Your task to perform on an android device: toggle improve location accuracy Image 0: 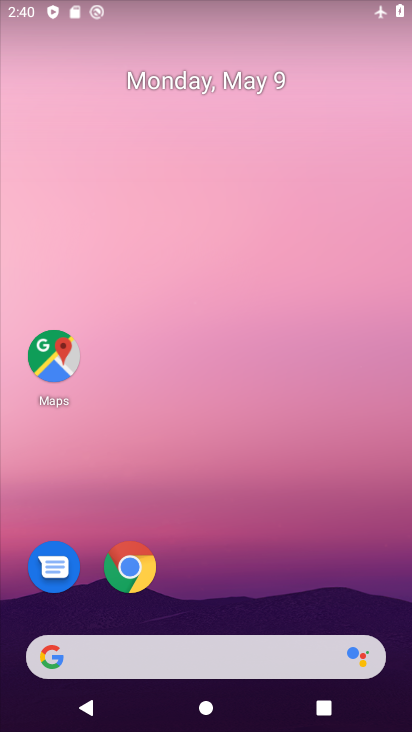
Step 0: drag from (218, 592) to (210, 93)
Your task to perform on an android device: toggle improve location accuracy Image 1: 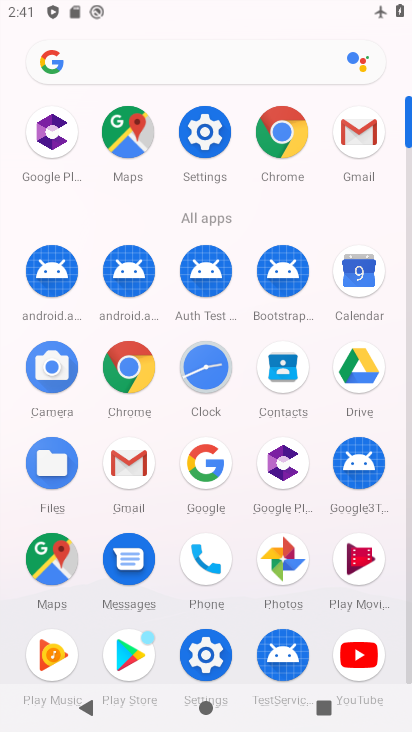
Step 1: click (215, 130)
Your task to perform on an android device: toggle improve location accuracy Image 2: 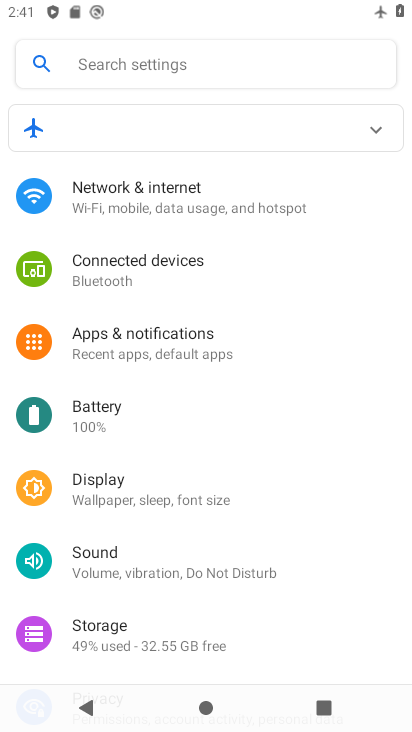
Step 2: drag from (176, 581) to (132, 201)
Your task to perform on an android device: toggle improve location accuracy Image 3: 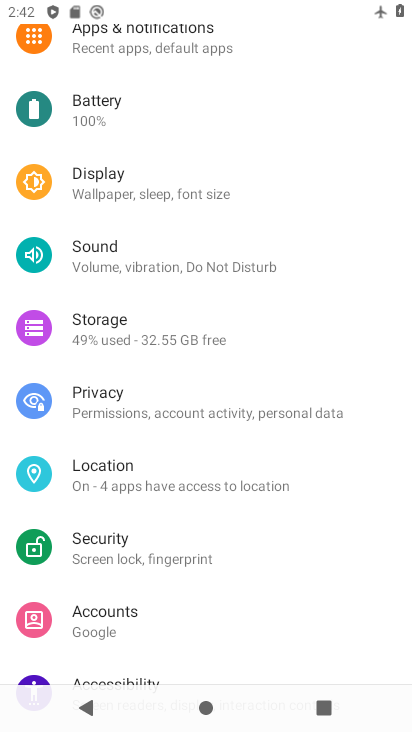
Step 3: click (215, 485)
Your task to perform on an android device: toggle improve location accuracy Image 4: 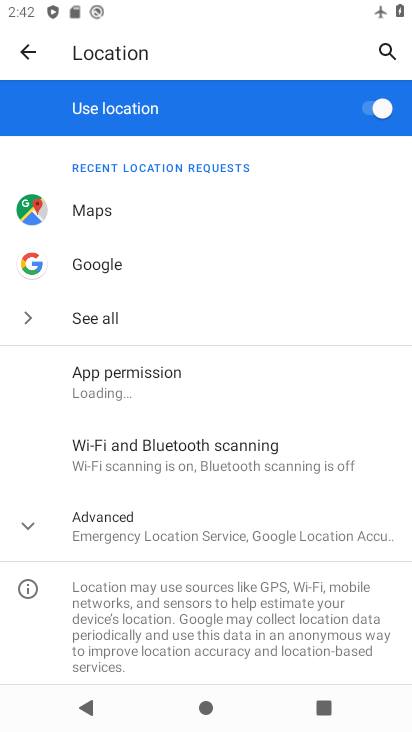
Step 4: click (199, 534)
Your task to perform on an android device: toggle improve location accuracy Image 5: 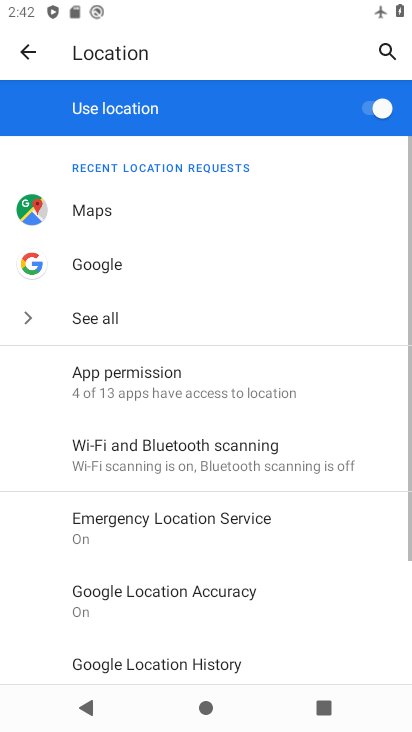
Step 5: drag from (282, 669) to (288, 491)
Your task to perform on an android device: toggle improve location accuracy Image 6: 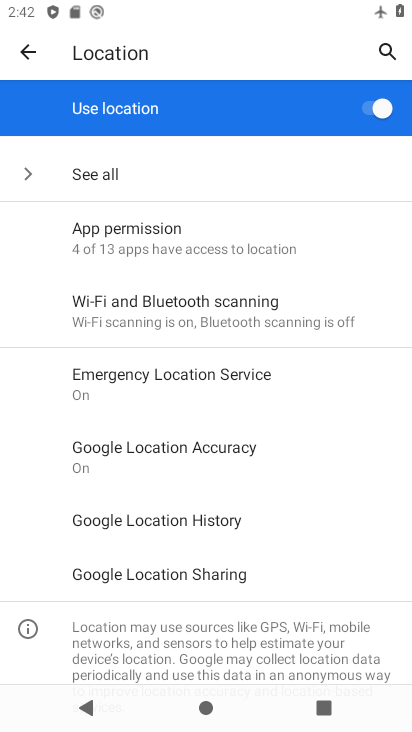
Step 6: click (201, 448)
Your task to perform on an android device: toggle improve location accuracy Image 7: 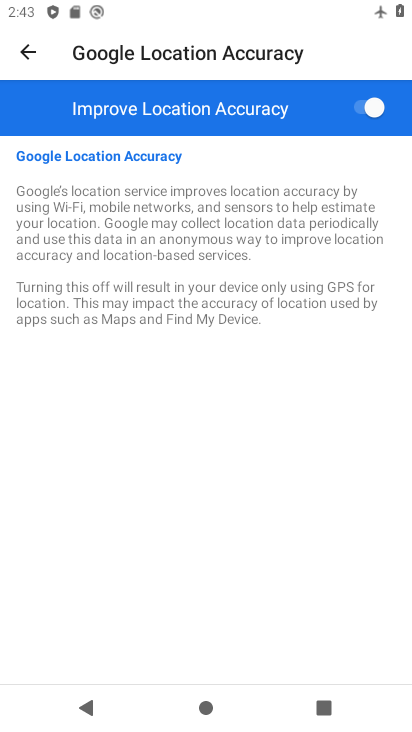
Step 7: click (354, 99)
Your task to perform on an android device: toggle improve location accuracy Image 8: 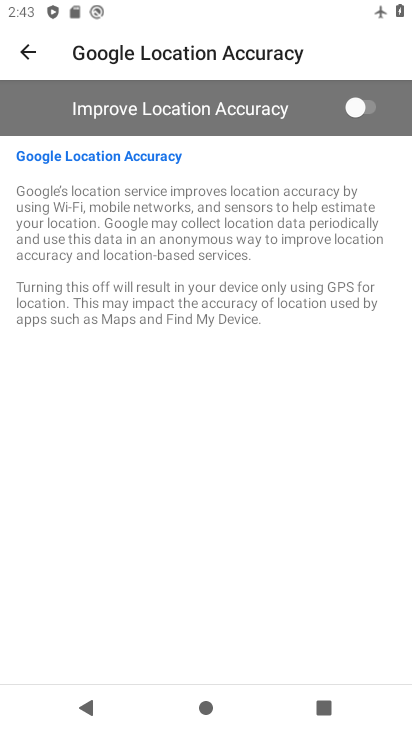
Step 8: task complete